Your task to perform on an android device: toggle show notifications on the lock screen Image 0: 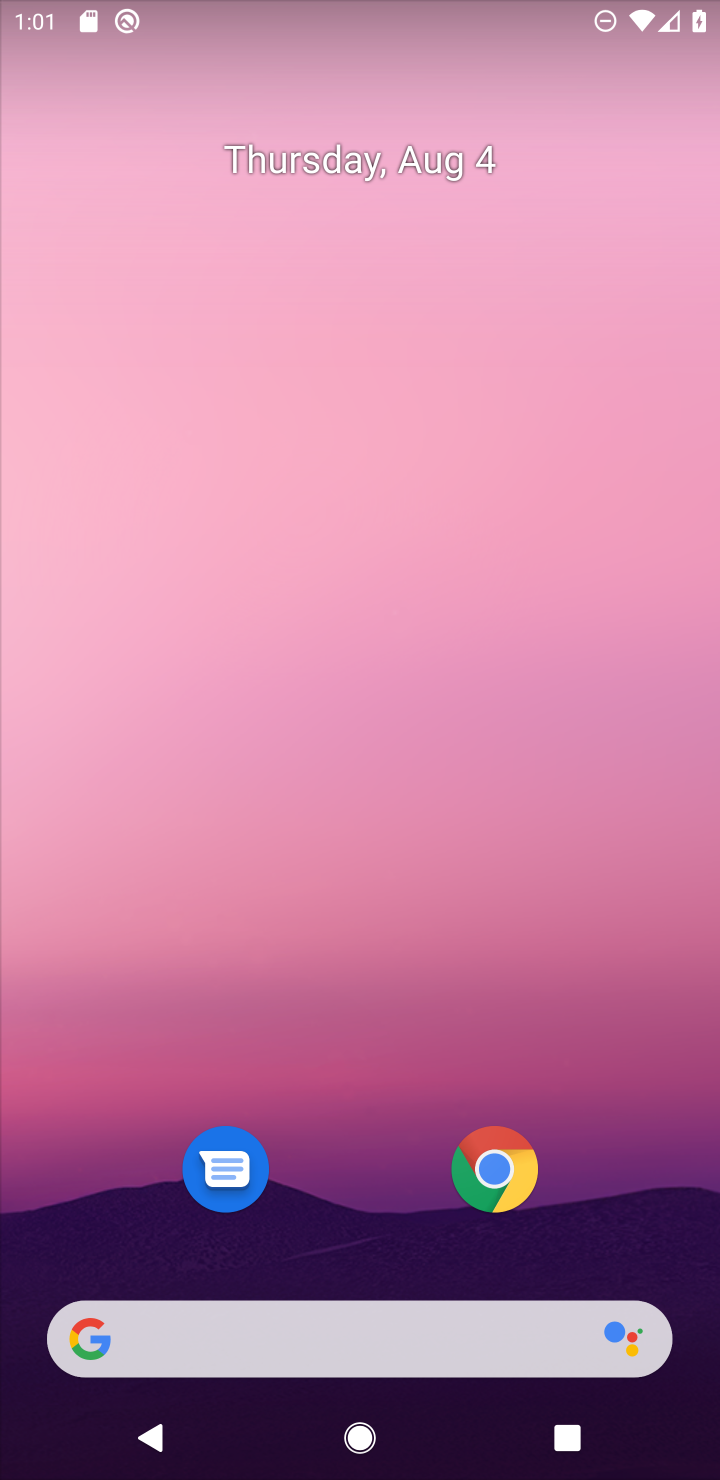
Step 0: drag from (612, 1272) to (490, 60)
Your task to perform on an android device: toggle show notifications on the lock screen Image 1: 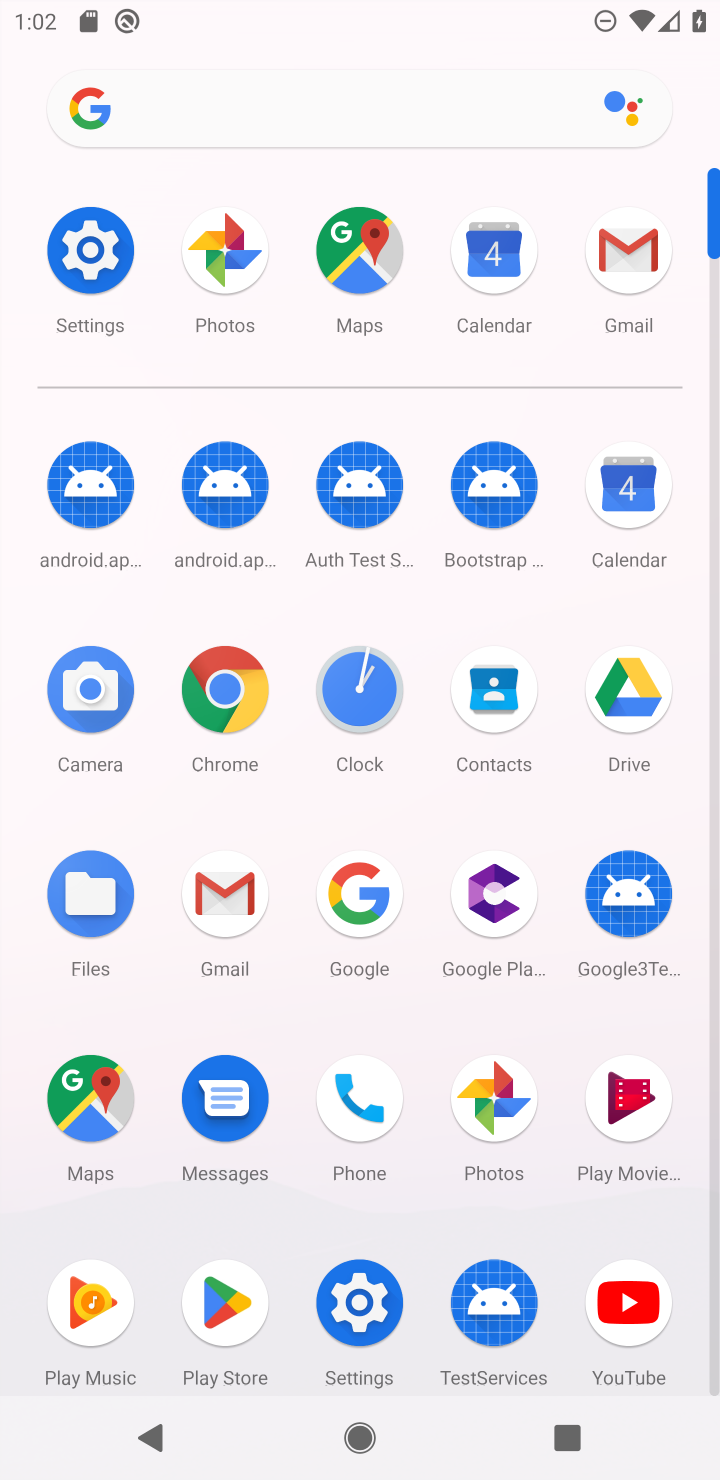
Step 1: click (73, 272)
Your task to perform on an android device: toggle show notifications on the lock screen Image 2: 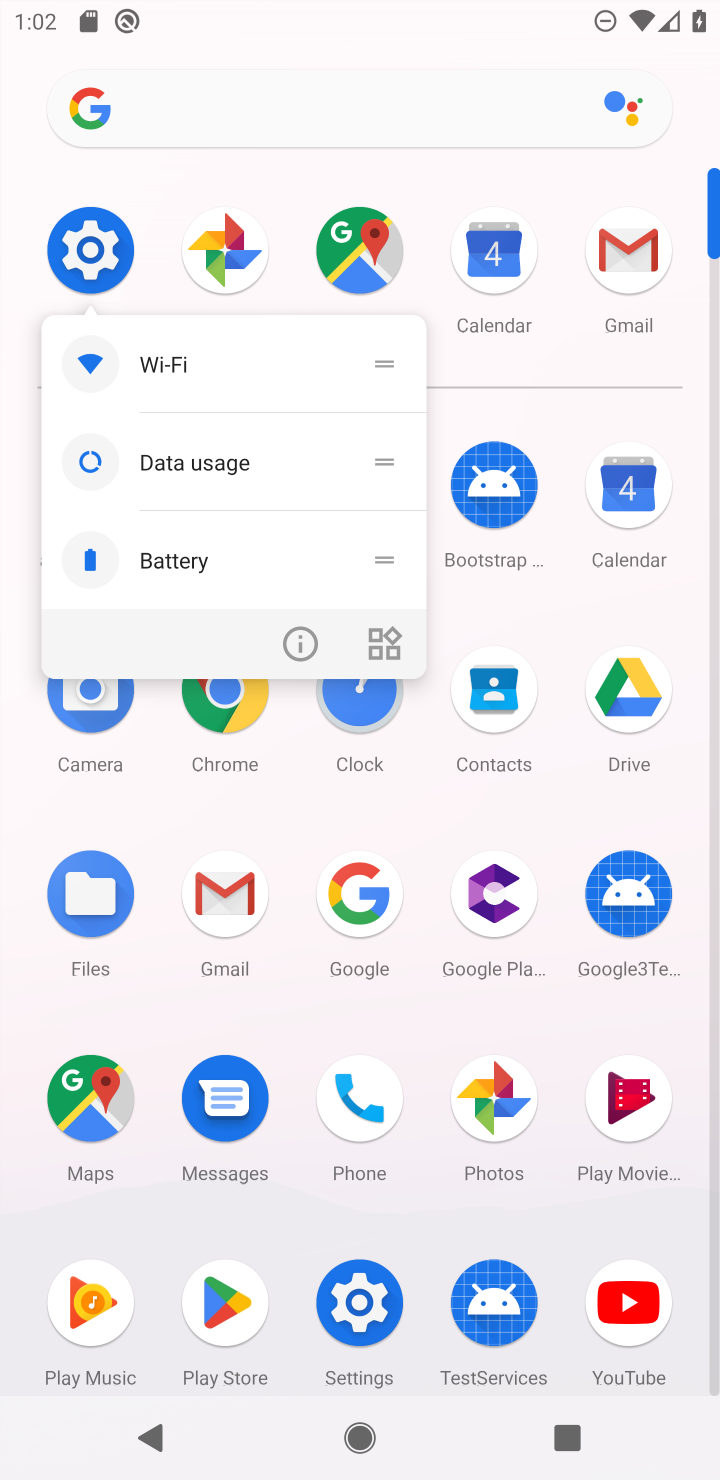
Step 2: click (78, 263)
Your task to perform on an android device: toggle show notifications on the lock screen Image 3: 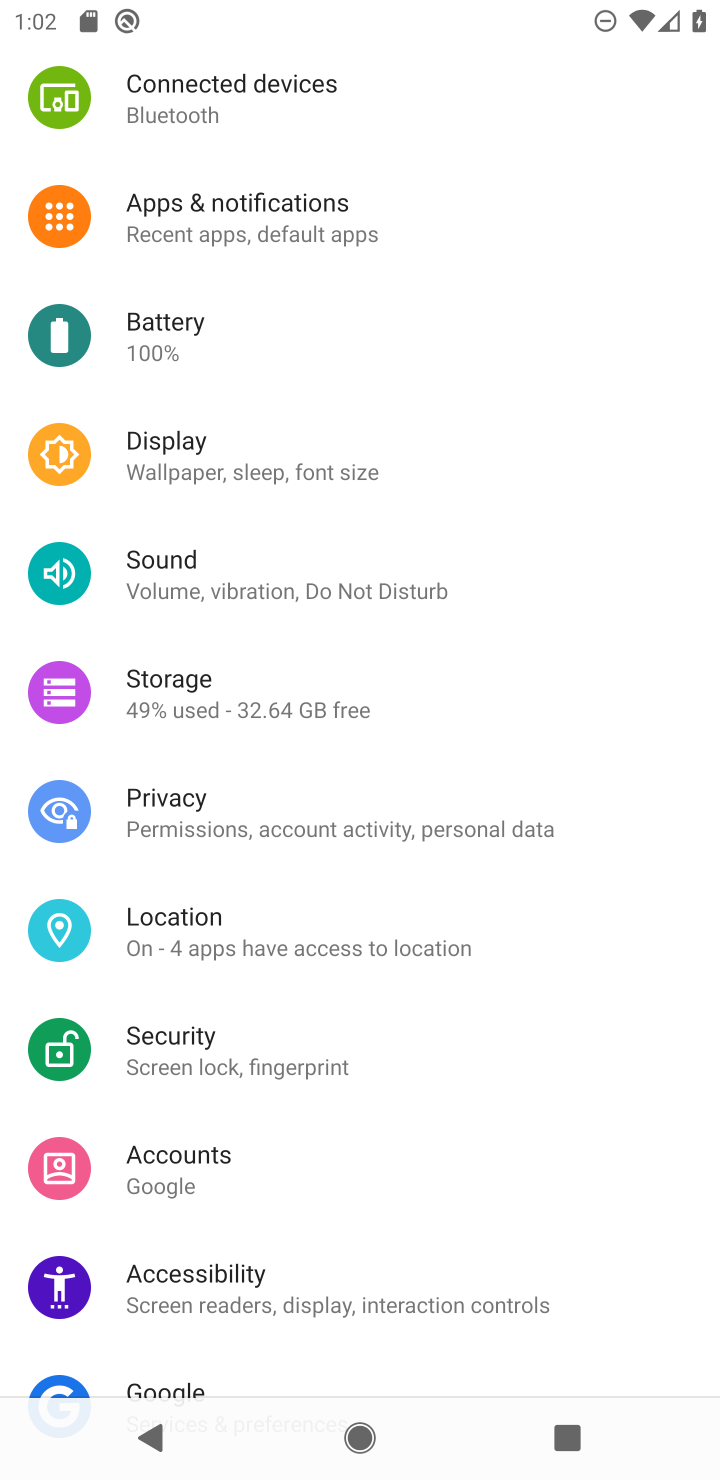
Step 3: click (208, 250)
Your task to perform on an android device: toggle show notifications on the lock screen Image 4: 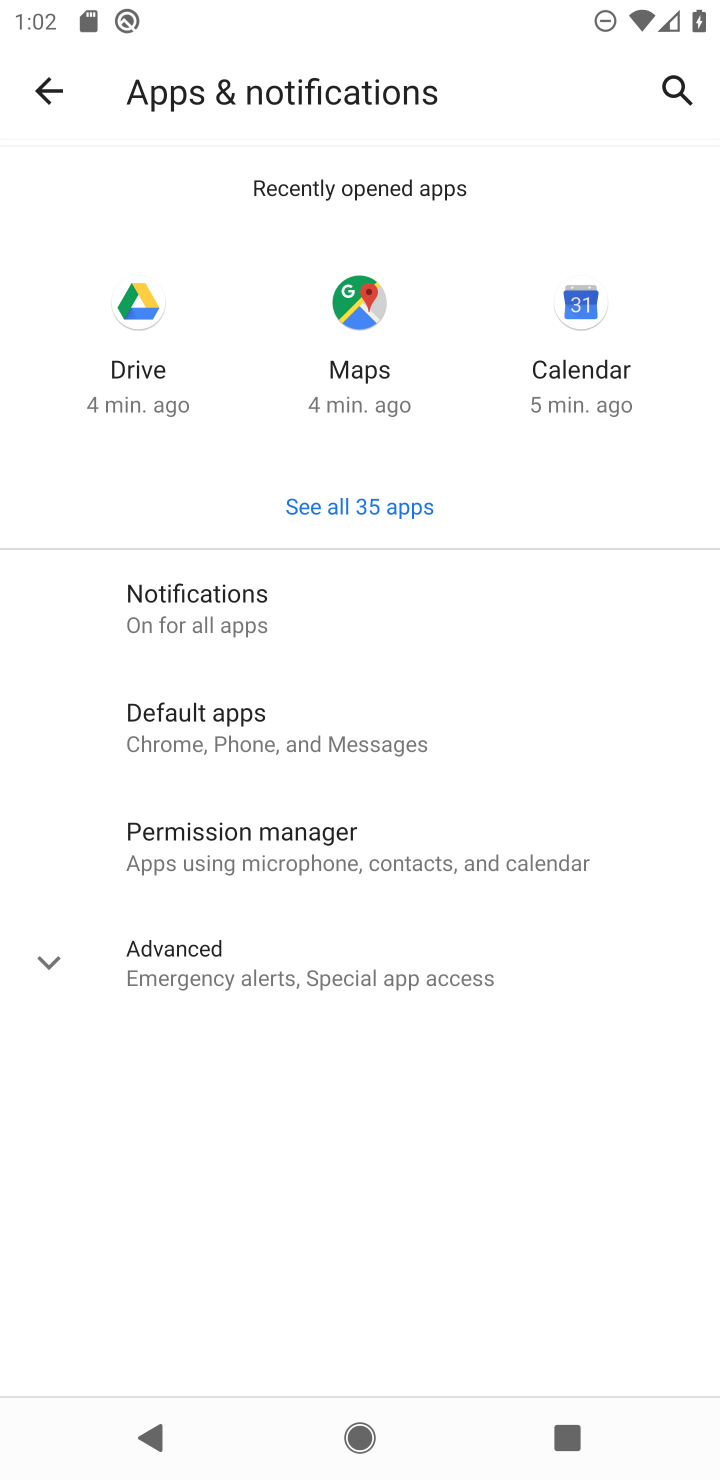
Step 4: click (205, 621)
Your task to perform on an android device: toggle show notifications on the lock screen Image 5: 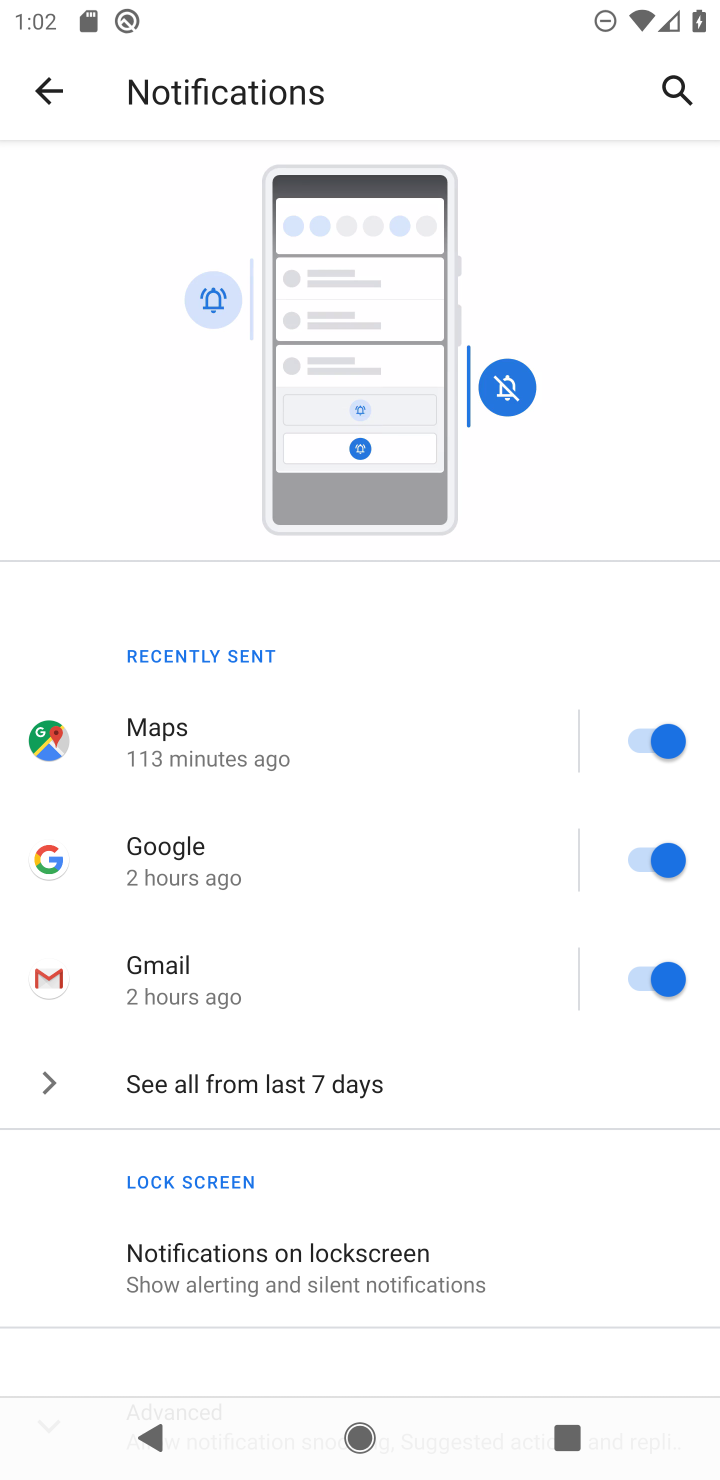
Step 5: drag from (286, 1119) to (284, 665)
Your task to perform on an android device: toggle show notifications on the lock screen Image 6: 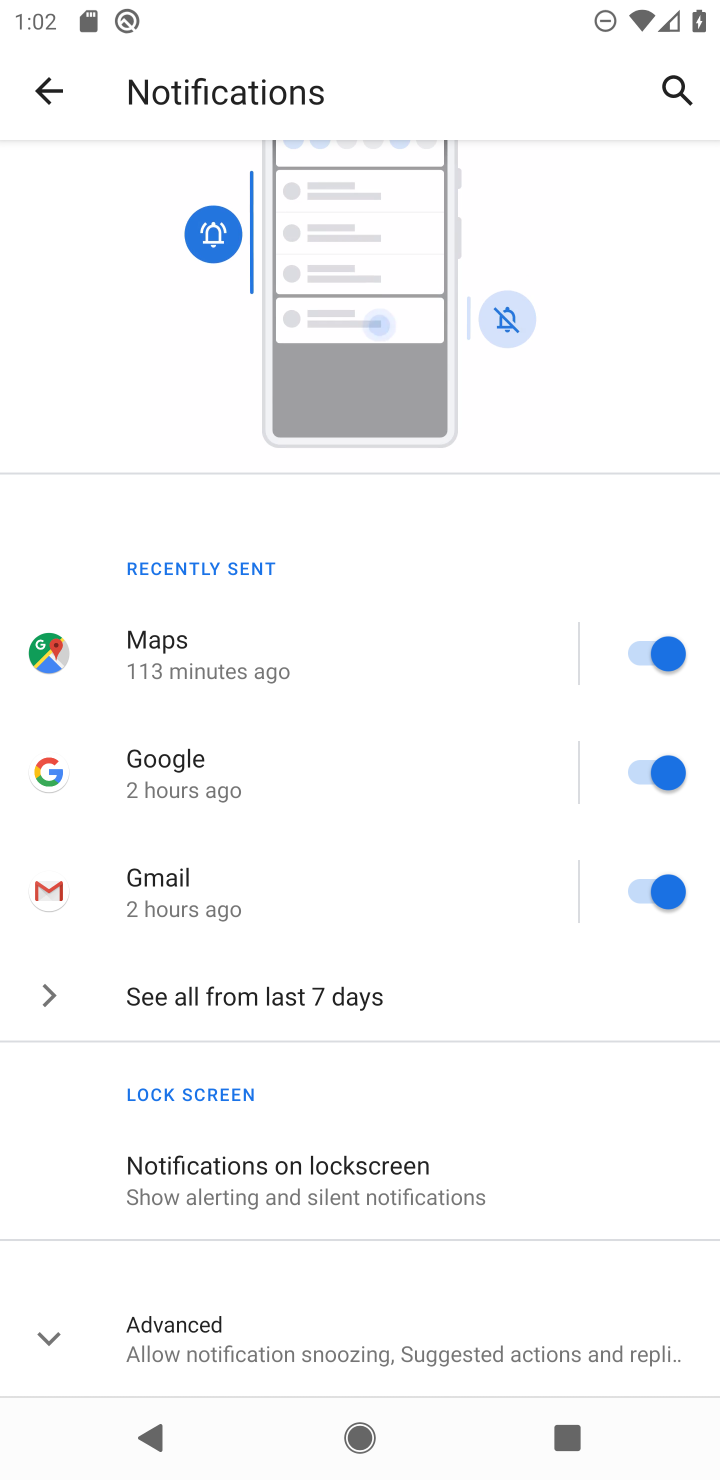
Step 6: click (221, 1179)
Your task to perform on an android device: toggle show notifications on the lock screen Image 7: 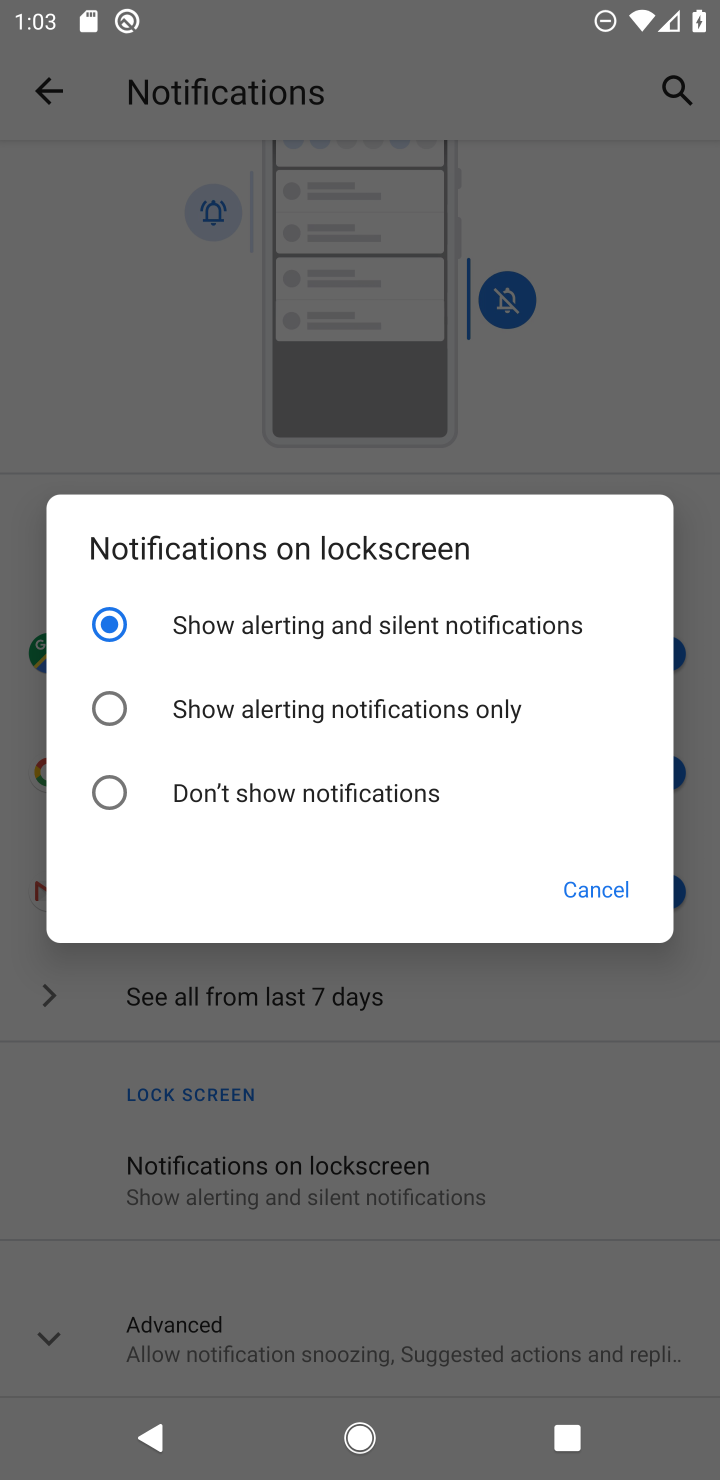
Step 7: click (113, 798)
Your task to perform on an android device: toggle show notifications on the lock screen Image 8: 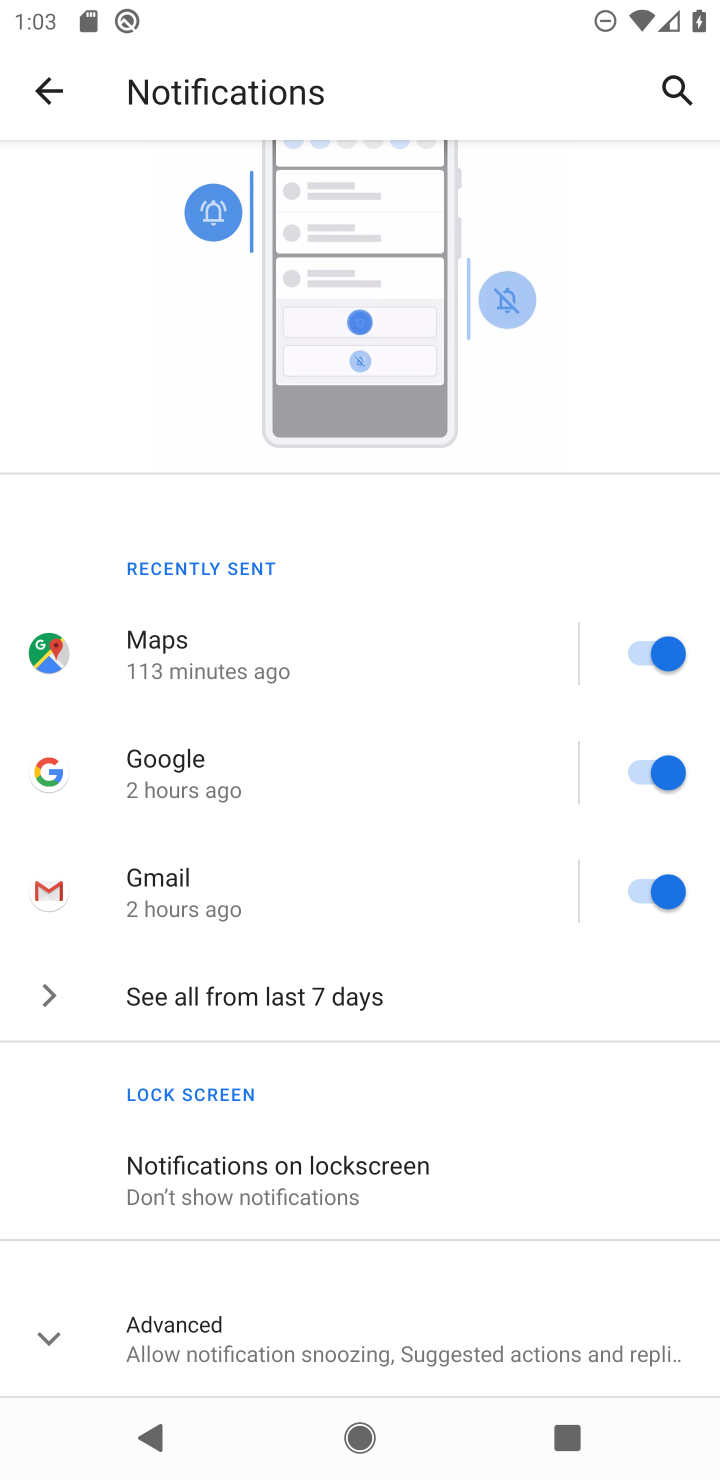
Step 8: task complete